Your task to perform on an android device: Open the phone app and click the voicemail tab. Image 0: 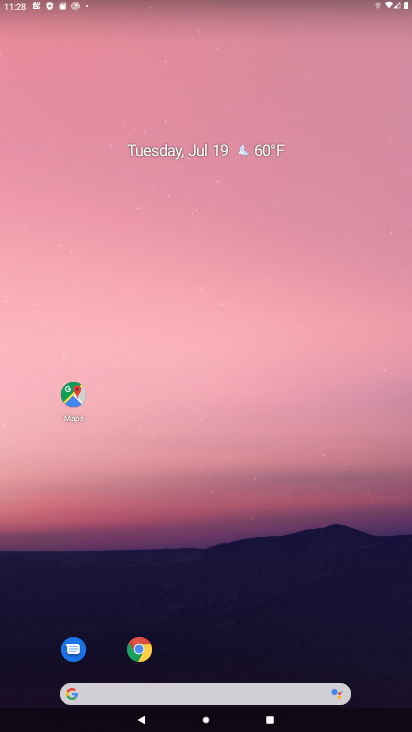
Step 0: drag from (226, 689) to (180, 116)
Your task to perform on an android device: Open the phone app and click the voicemail tab. Image 1: 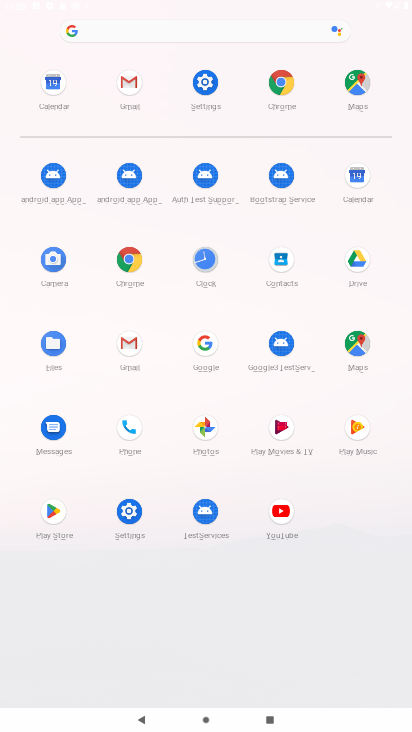
Step 1: click (126, 425)
Your task to perform on an android device: Open the phone app and click the voicemail tab. Image 2: 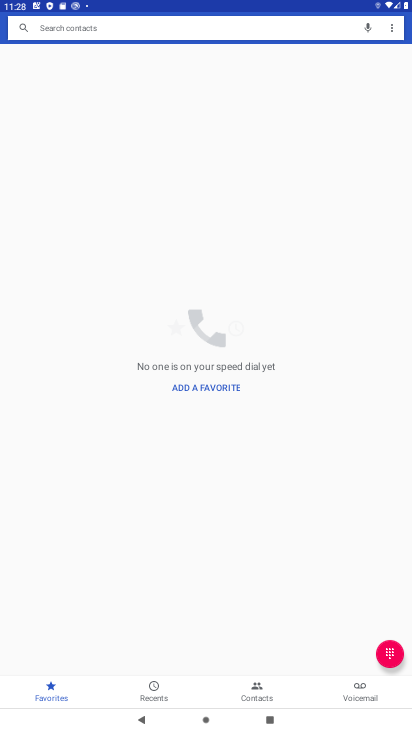
Step 2: click (351, 683)
Your task to perform on an android device: Open the phone app and click the voicemail tab. Image 3: 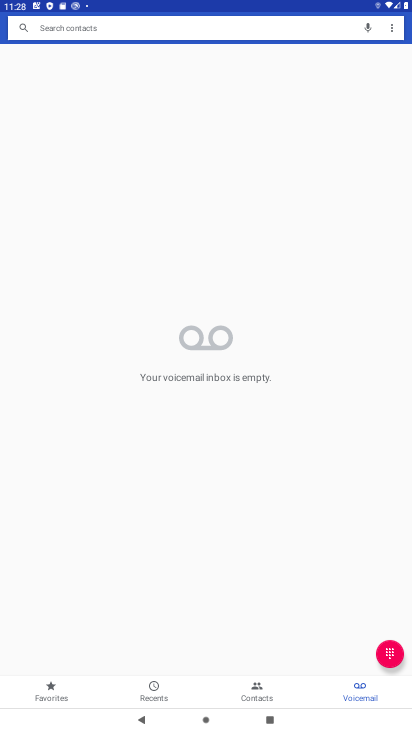
Step 3: task complete